Your task to perform on an android device: Search for Italian restaurants on Maps Image 0: 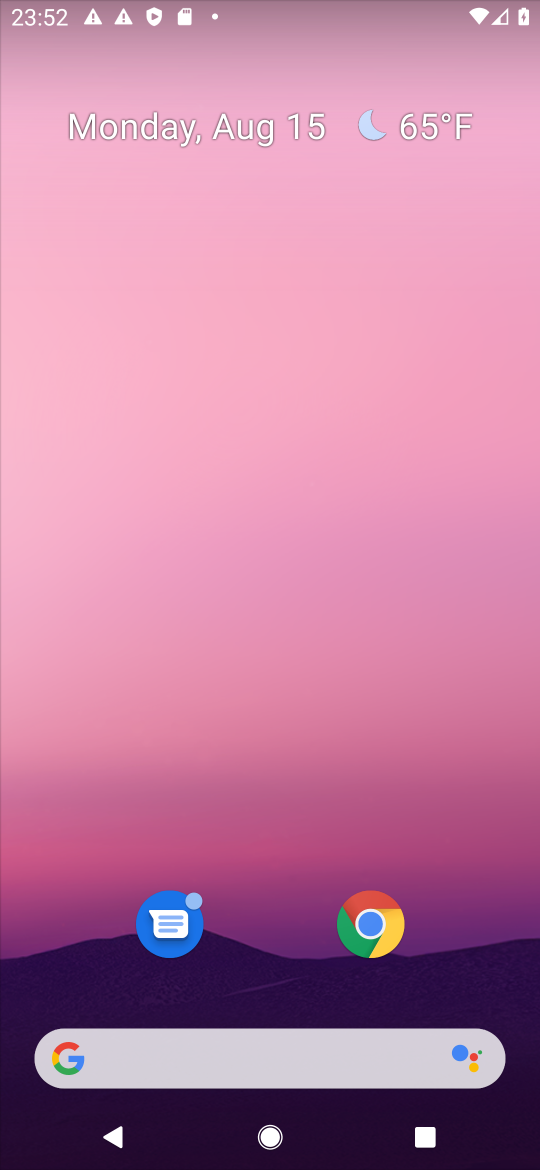
Step 0: drag from (295, 922) to (245, 291)
Your task to perform on an android device: Search for Italian restaurants on Maps Image 1: 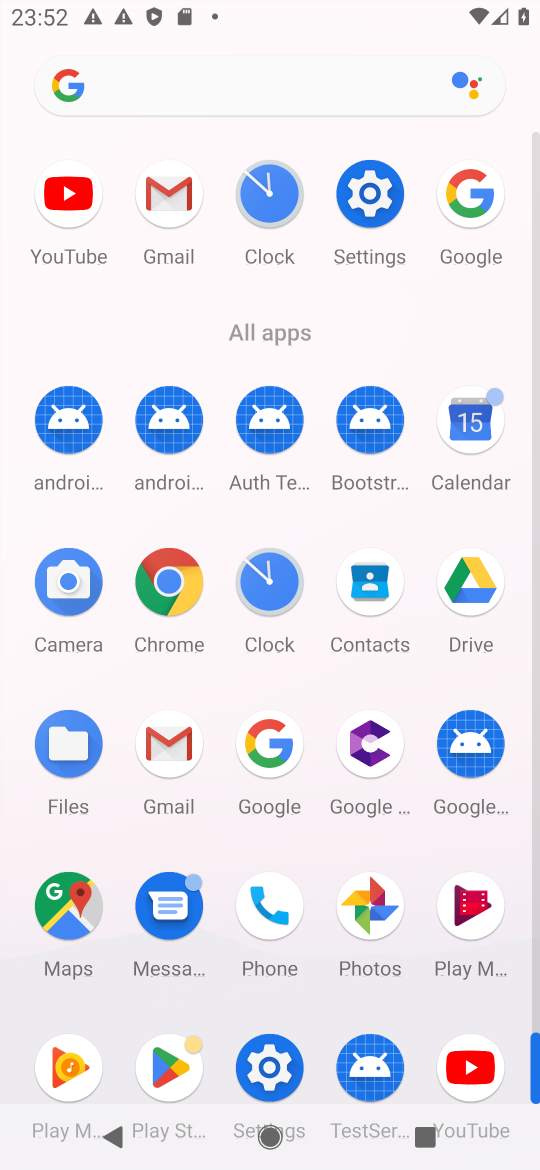
Step 1: click (64, 897)
Your task to perform on an android device: Search for Italian restaurants on Maps Image 2: 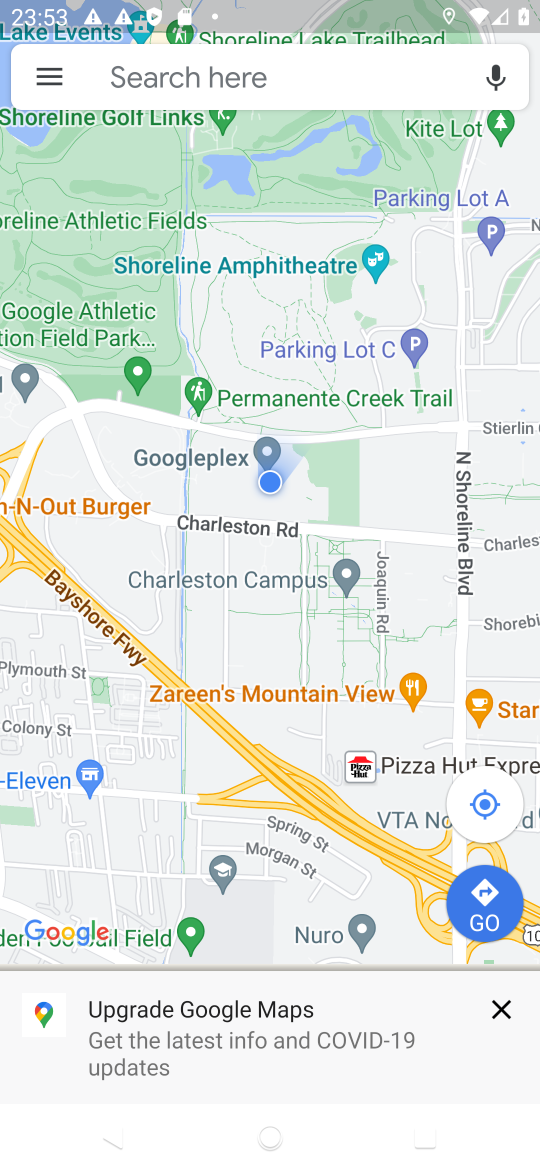
Step 2: click (281, 74)
Your task to perform on an android device: Search for Italian restaurants on Maps Image 3: 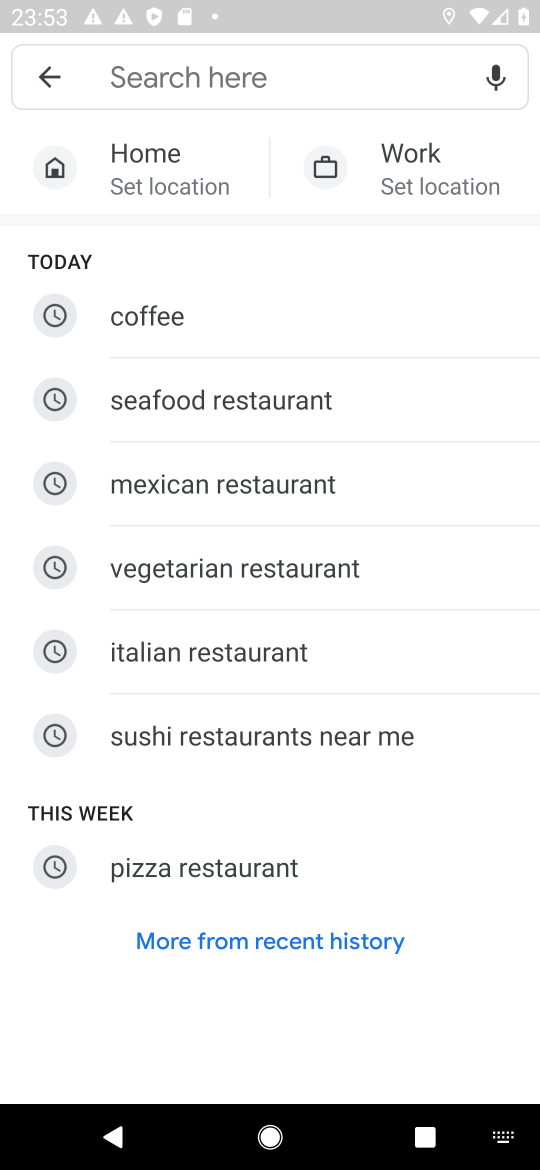
Step 3: click (232, 645)
Your task to perform on an android device: Search for Italian restaurants on Maps Image 4: 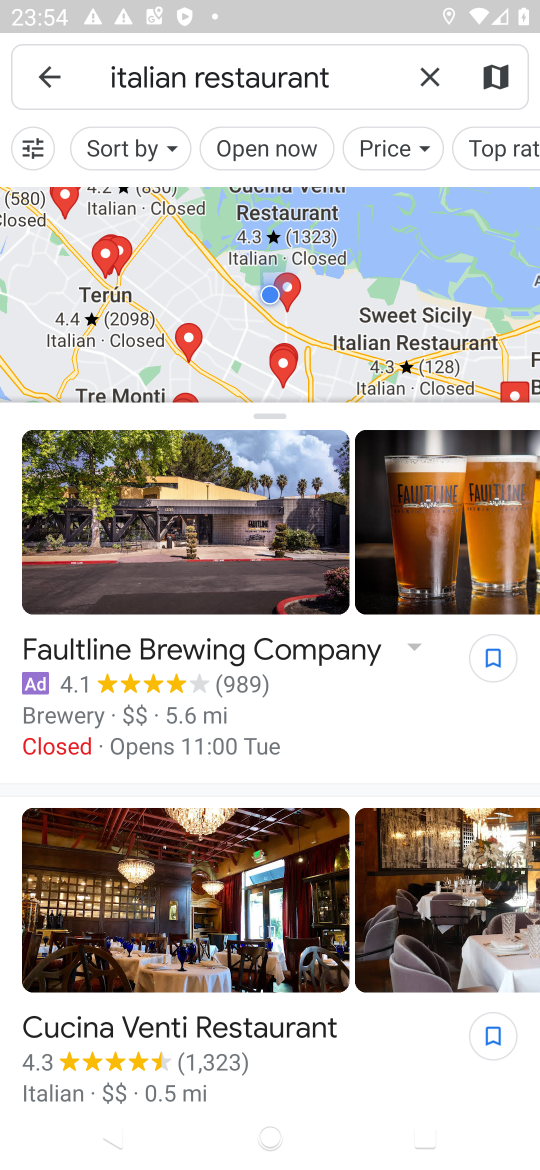
Step 4: task complete